Your task to perform on an android device: check google app version Image 0: 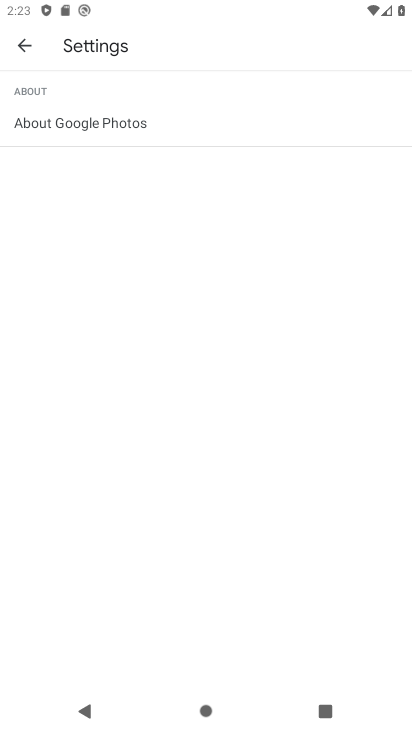
Step 0: press home button
Your task to perform on an android device: check google app version Image 1: 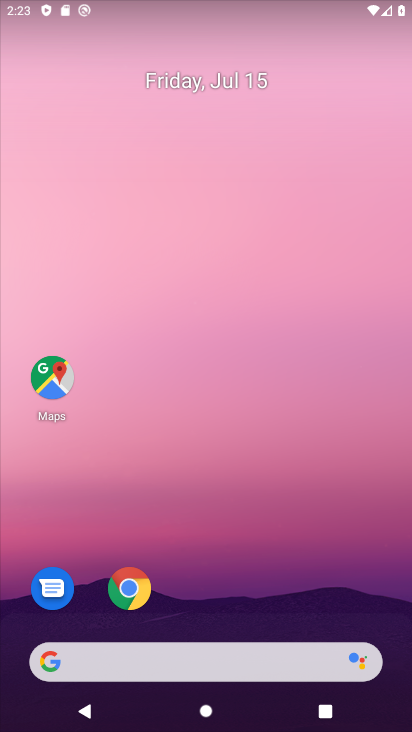
Step 1: drag from (220, 643) to (260, 96)
Your task to perform on an android device: check google app version Image 2: 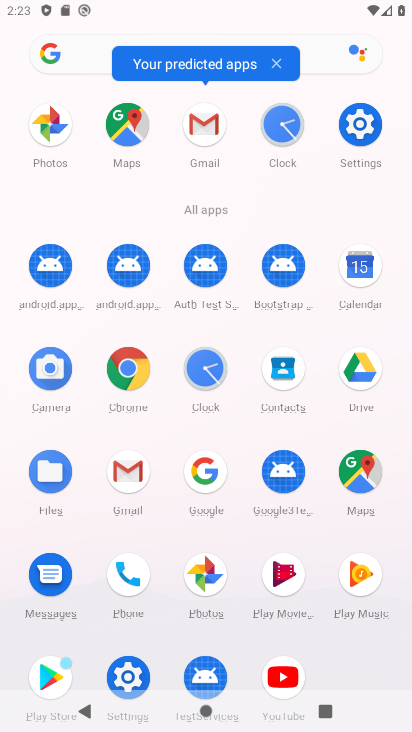
Step 2: click (126, 659)
Your task to perform on an android device: check google app version Image 3: 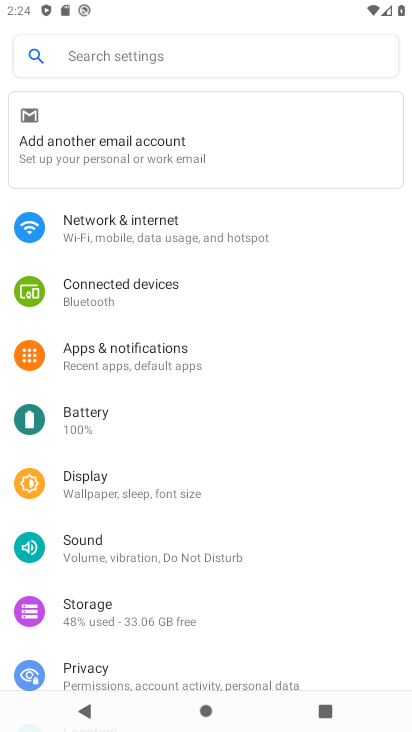
Step 3: click (122, 349)
Your task to perform on an android device: check google app version Image 4: 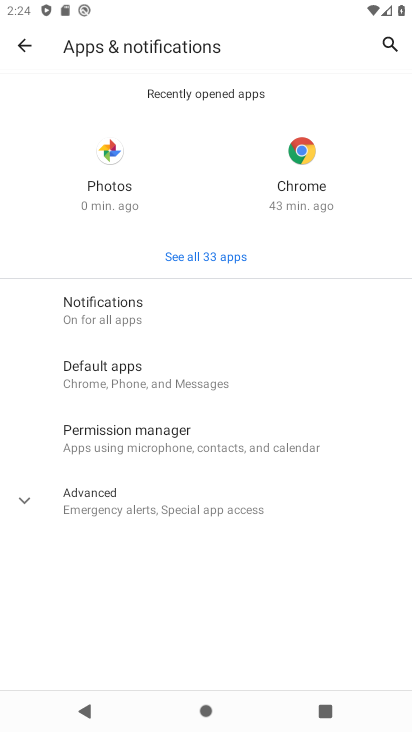
Step 4: click (182, 259)
Your task to perform on an android device: check google app version Image 5: 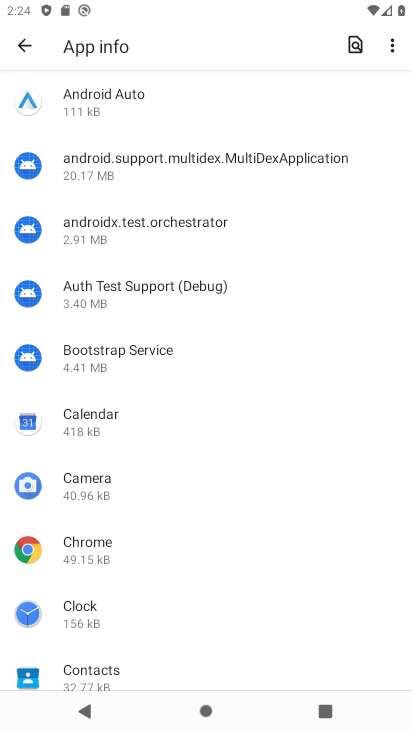
Step 5: drag from (144, 618) to (209, 205)
Your task to perform on an android device: check google app version Image 6: 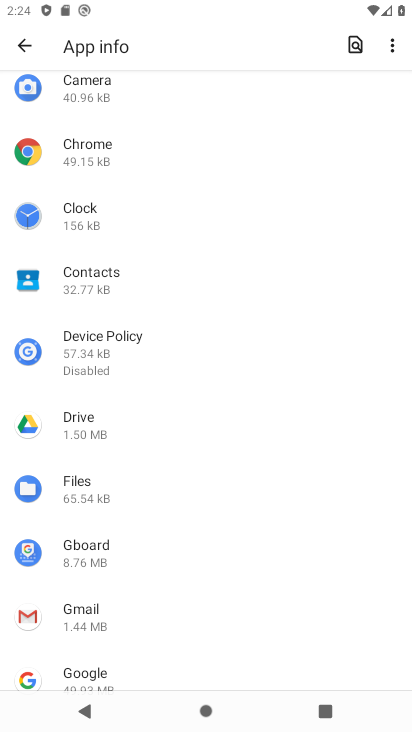
Step 6: click (152, 667)
Your task to perform on an android device: check google app version Image 7: 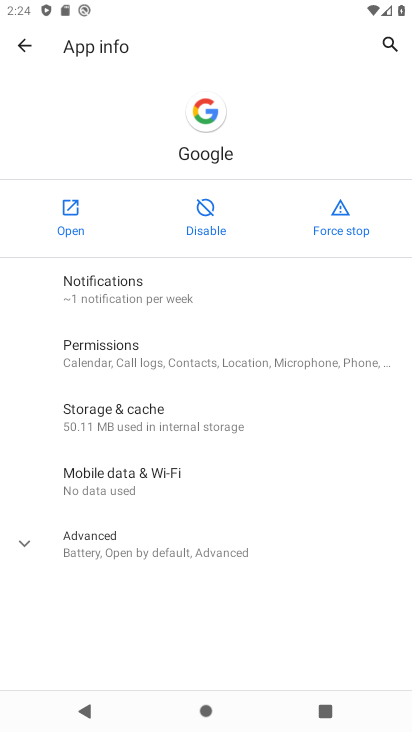
Step 7: click (177, 563)
Your task to perform on an android device: check google app version Image 8: 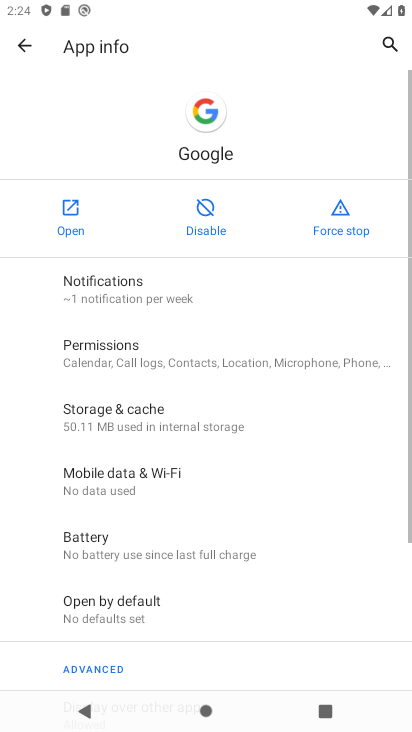
Step 8: task complete